Your task to perform on an android device: open app "Nova Launcher" (install if not already installed), go to login, and select forgot password Image 0: 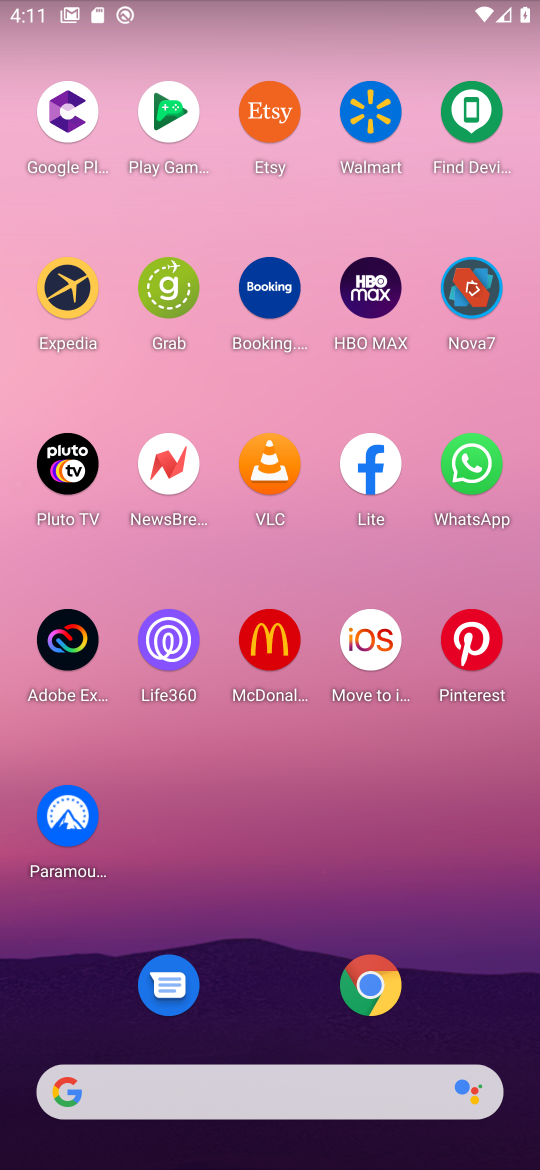
Step 0: press home button
Your task to perform on an android device: open app "Nova Launcher" (install if not already installed), go to login, and select forgot password Image 1: 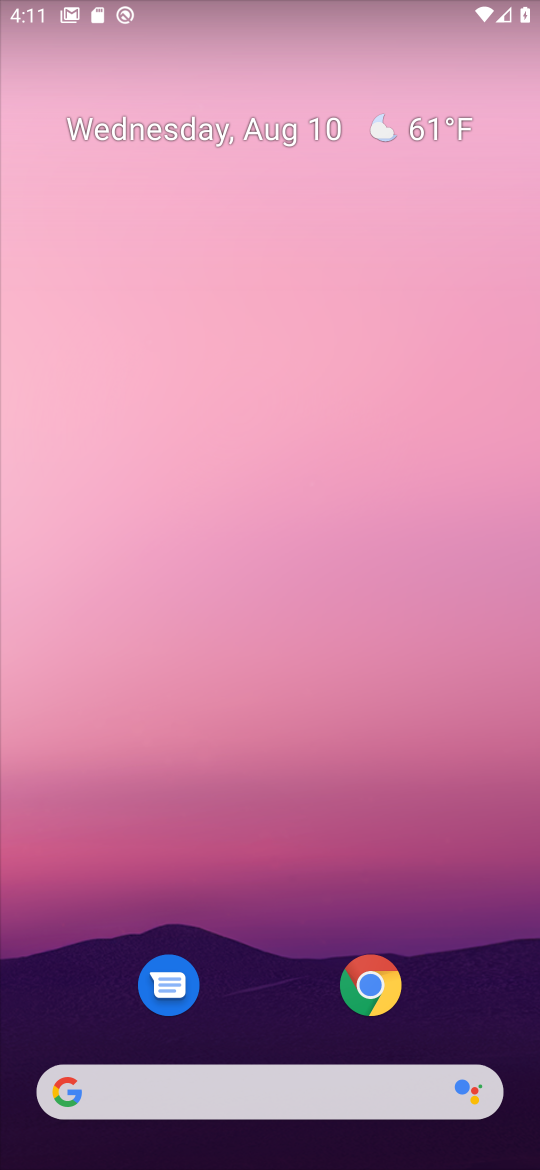
Step 1: click (197, 143)
Your task to perform on an android device: open app "Nova Launcher" (install if not already installed), go to login, and select forgot password Image 2: 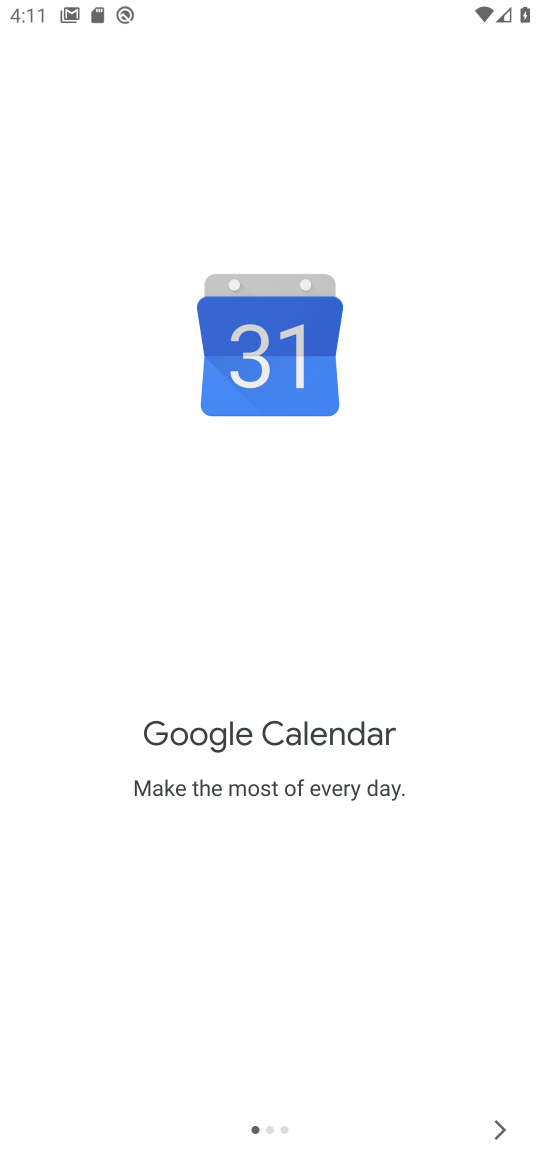
Step 2: press home button
Your task to perform on an android device: open app "Nova Launcher" (install if not already installed), go to login, and select forgot password Image 3: 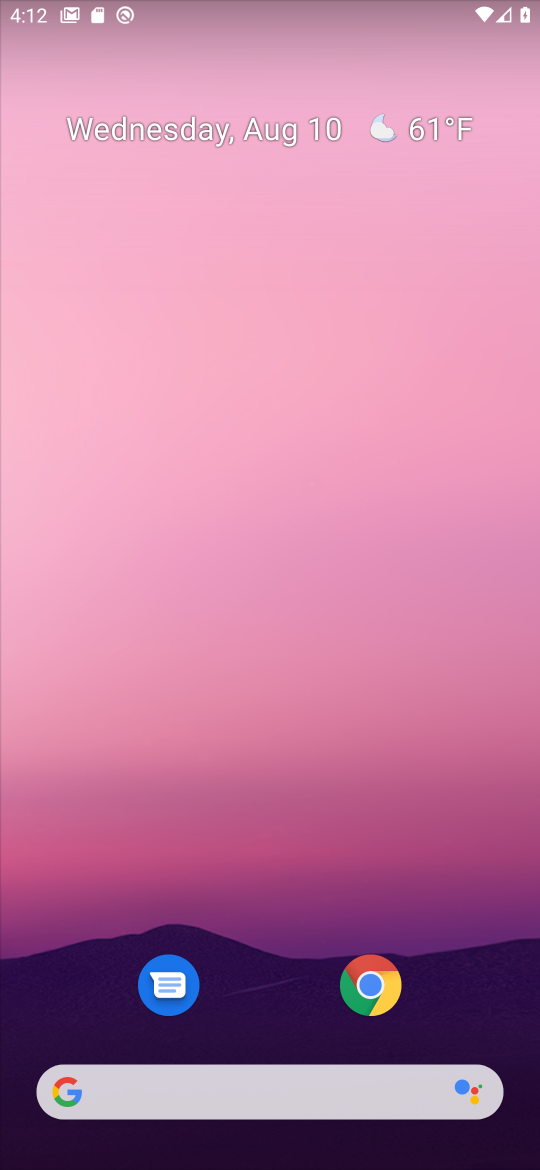
Step 3: drag from (260, 986) to (241, 41)
Your task to perform on an android device: open app "Nova Launcher" (install if not already installed), go to login, and select forgot password Image 4: 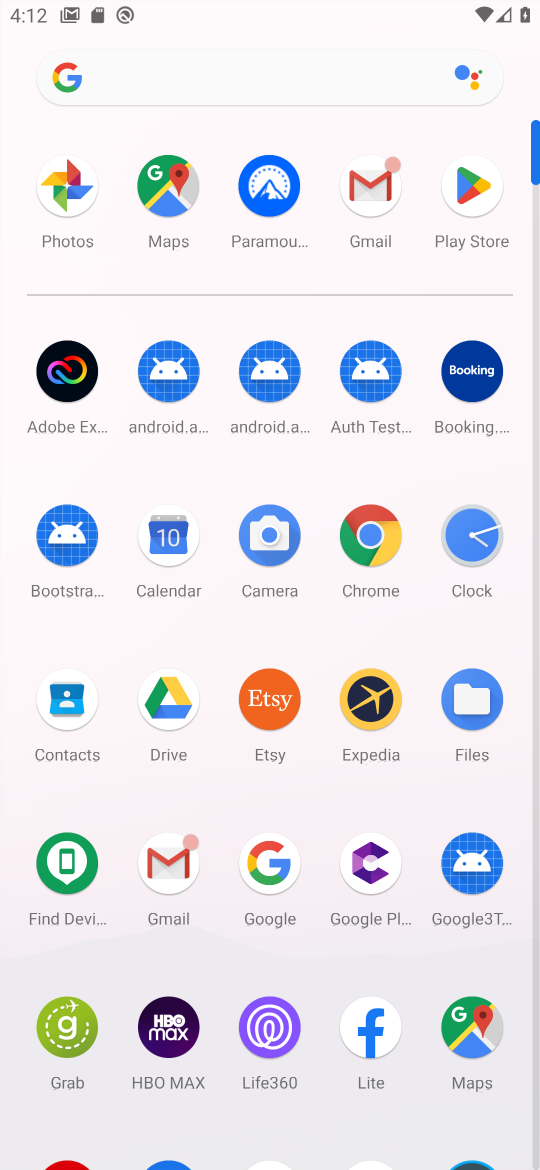
Step 4: click (466, 177)
Your task to perform on an android device: open app "Nova Launcher" (install if not already installed), go to login, and select forgot password Image 5: 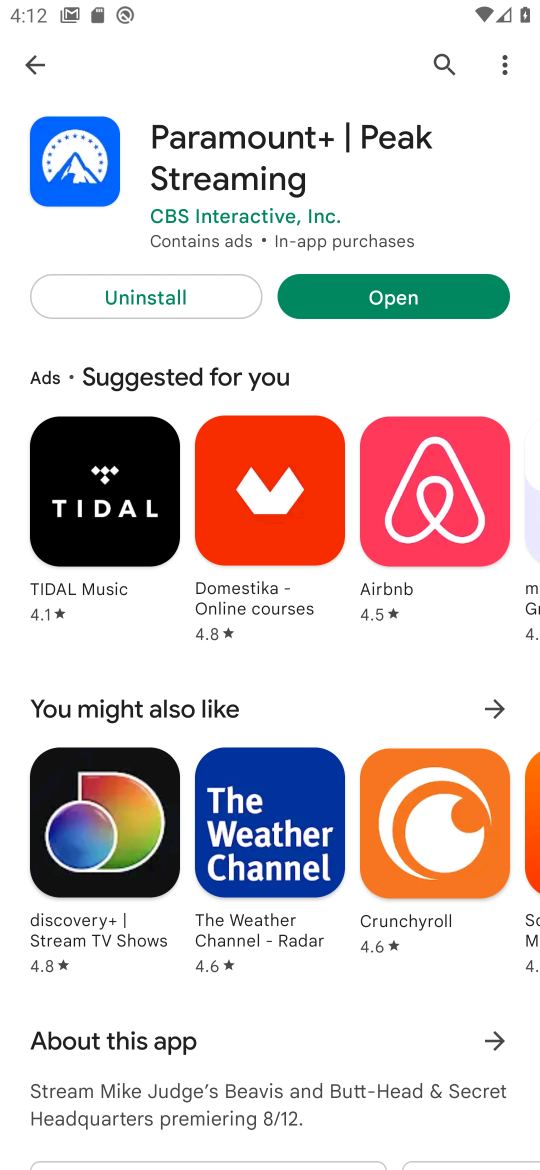
Step 5: click (37, 68)
Your task to perform on an android device: open app "Nova Launcher" (install if not already installed), go to login, and select forgot password Image 6: 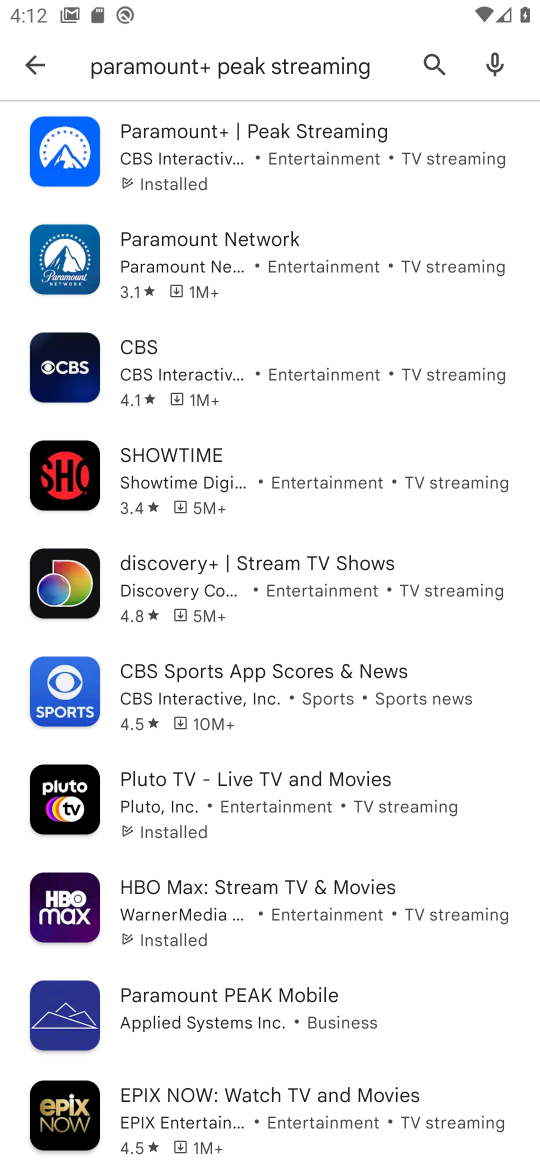
Step 6: click (33, 68)
Your task to perform on an android device: open app "Nova Launcher" (install if not already installed), go to login, and select forgot password Image 7: 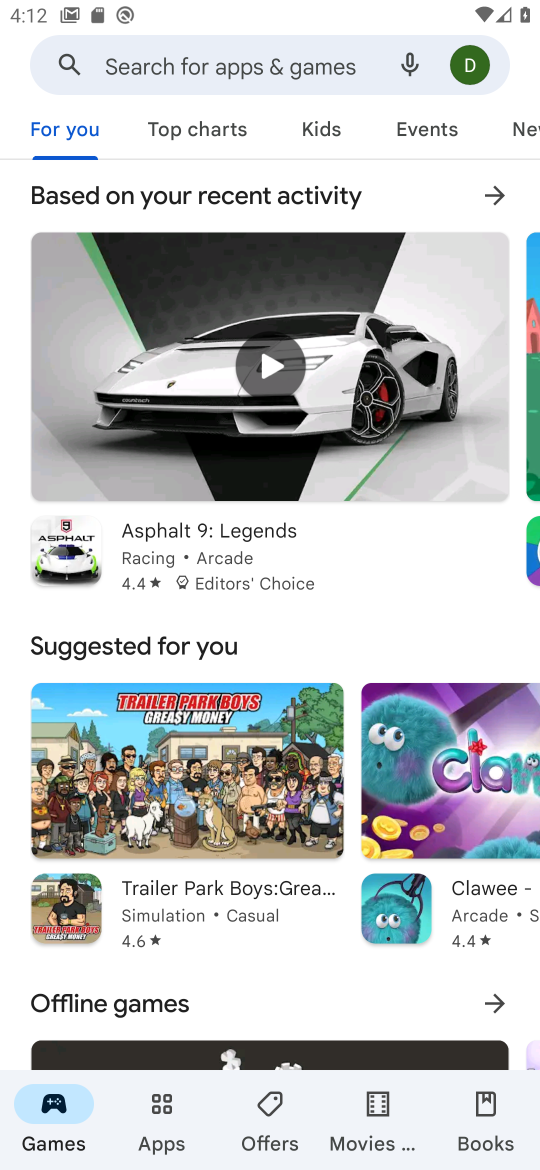
Step 7: click (207, 75)
Your task to perform on an android device: open app "Nova Launcher" (install if not already installed), go to login, and select forgot password Image 8: 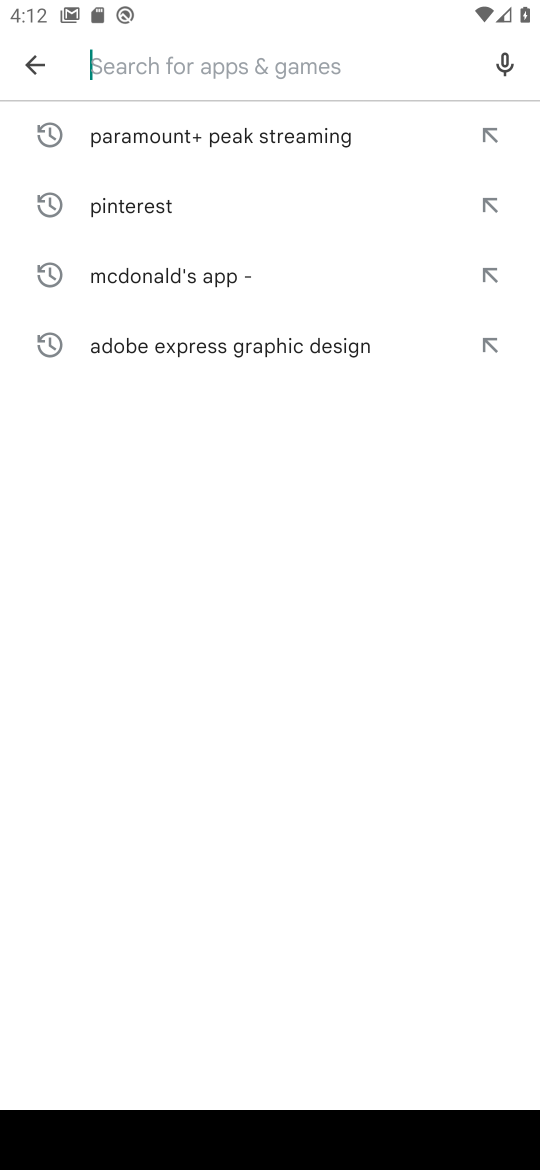
Step 8: type "Nova Launcher"
Your task to perform on an android device: open app "Nova Launcher" (install if not already installed), go to login, and select forgot password Image 9: 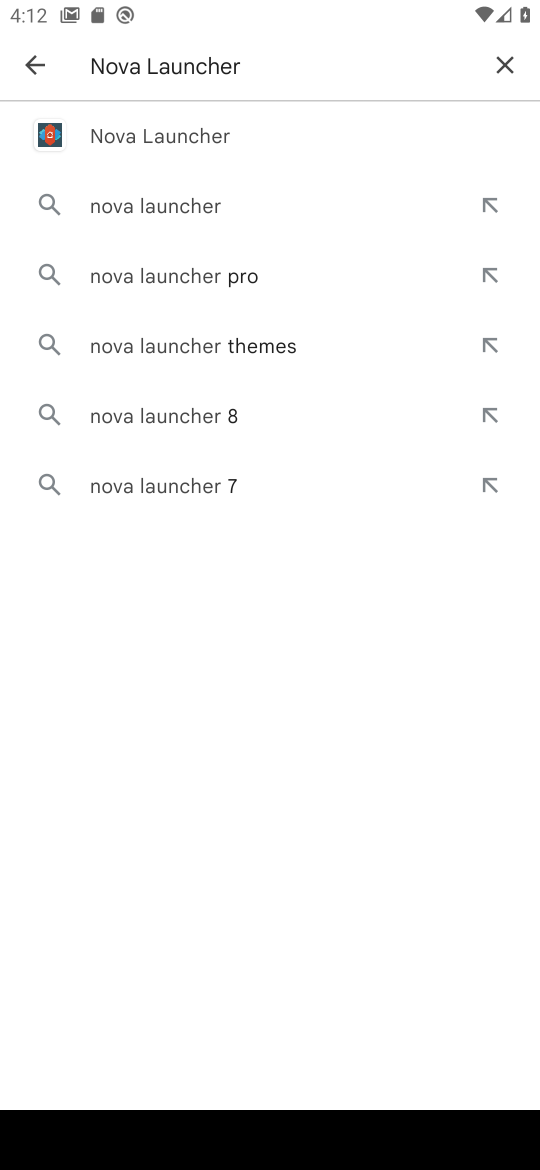
Step 9: click (224, 136)
Your task to perform on an android device: open app "Nova Launcher" (install if not already installed), go to login, and select forgot password Image 10: 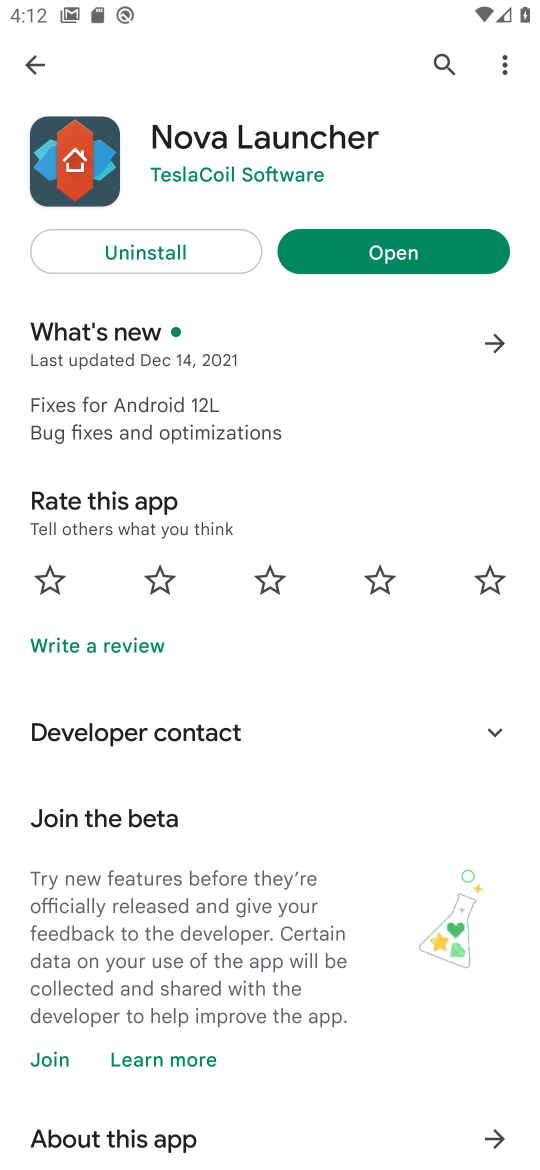
Step 10: click (370, 237)
Your task to perform on an android device: open app "Nova Launcher" (install if not already installed), go to login, and select forgot password Image 11: 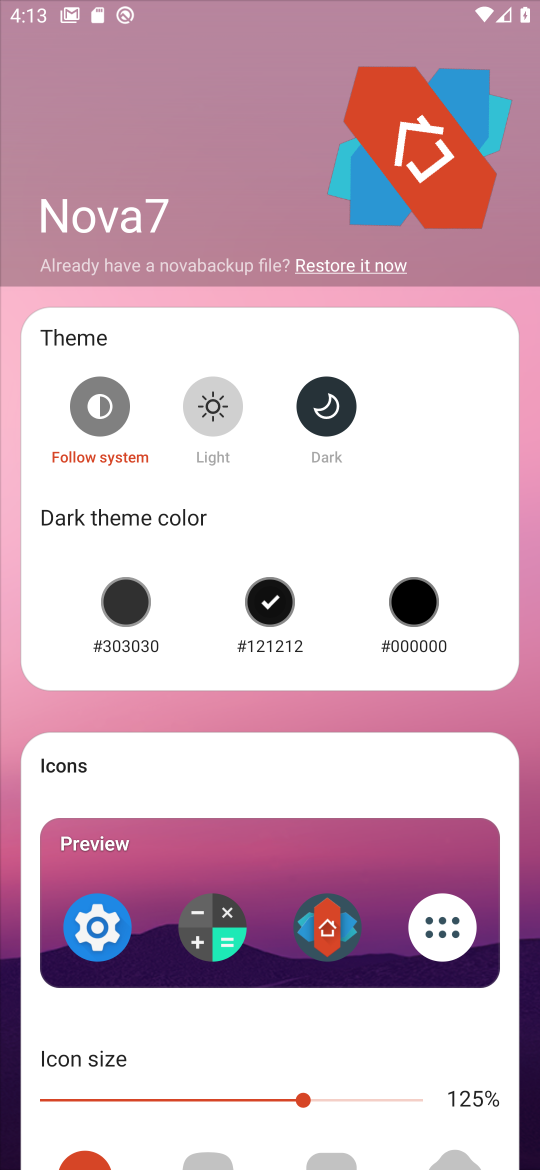
Step 11: task complete